Your task to perform on an android device: visit the assistant section in the google photos Image 0: 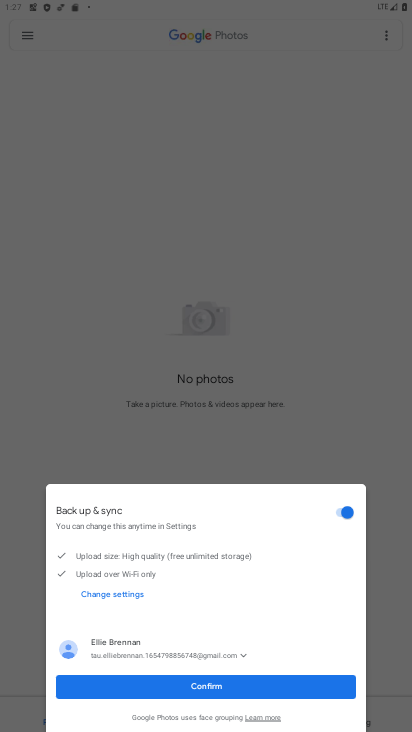
Step 0: click (221, 687)
Your task to perform on an android device: visit the assistant section in the google photos Image 1: 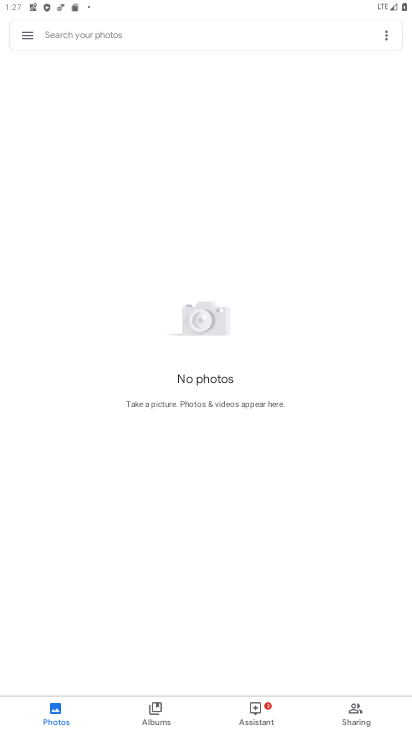
Step 1: click (256, 714)
Your task to perform on an android device: visit the assistant section in the google photos Image 2: 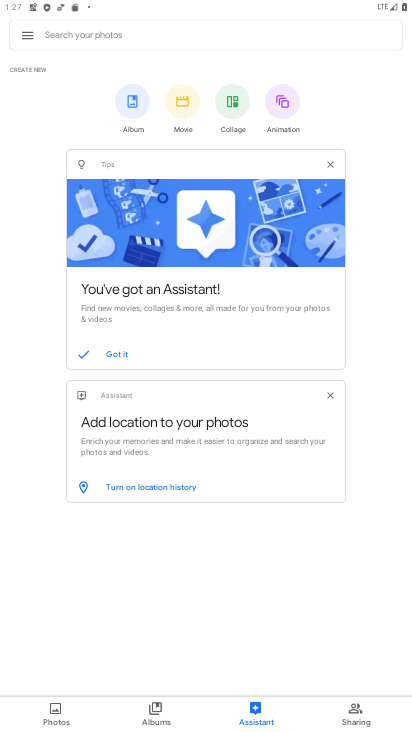
Step 2: task complete